Your task to perform on an android device: create a new album in the google photos Image 0: 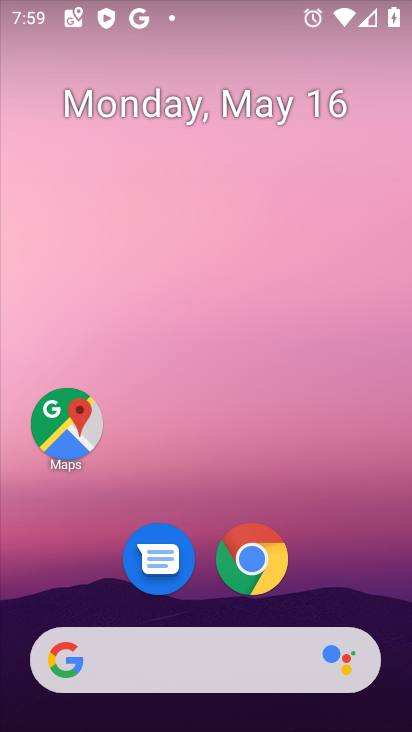
Step 0: drag from (357, 522) to (323, 171)
Your task to perform on an android device: create a new album in the google photos Image 1: 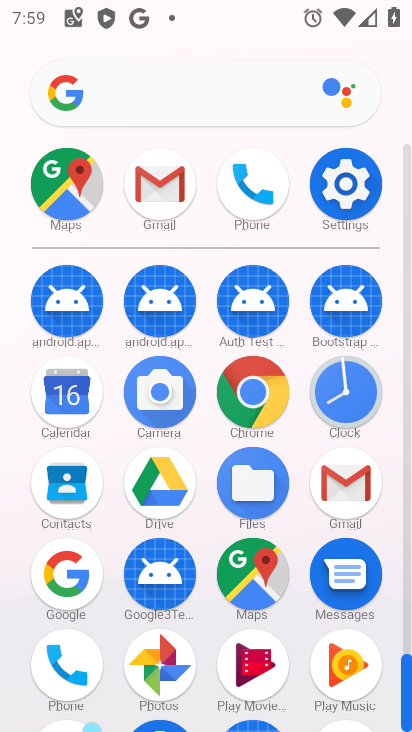
Step 1: click (174, 645)
Your task to perform on an android device: create a new album in the google photos Image 2: 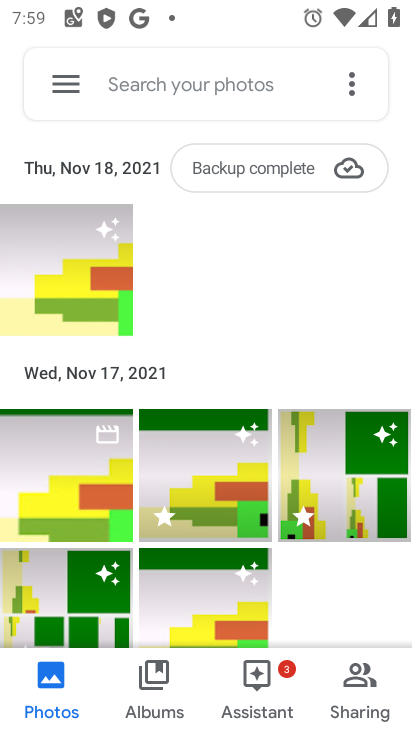
Step 2: click (168, 688)
Your task to perform on an android device: create a new album in the google photos Image 3: 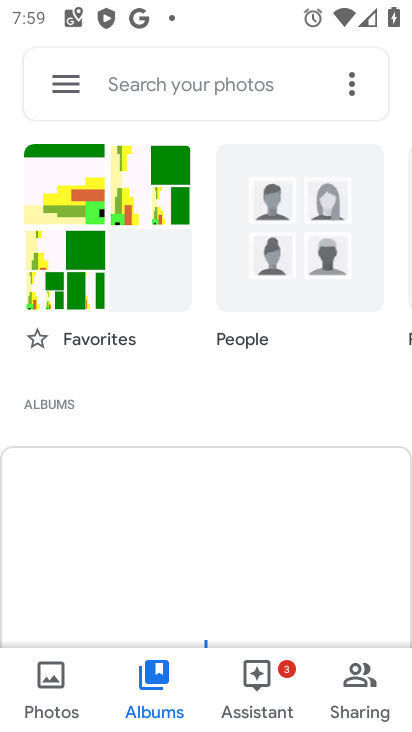
Step 3: drag from (105, 512) to (129, 245)
Your task to perform on an android device: create a new album in the google photos Image 4: 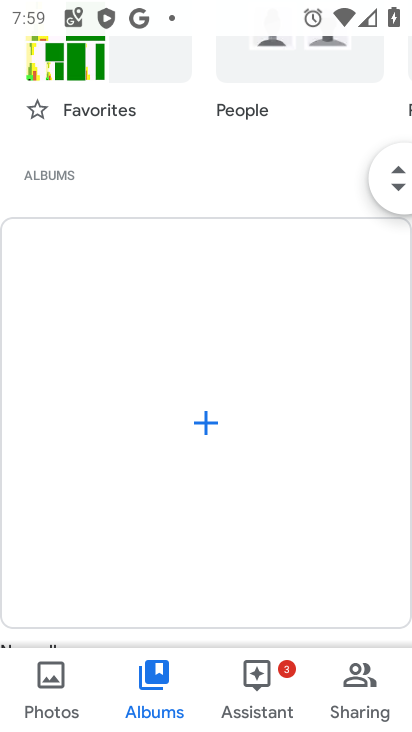
Step 4: click (205, 418)
Your task to perform on an android device: create a new album in the google photos Image 5: 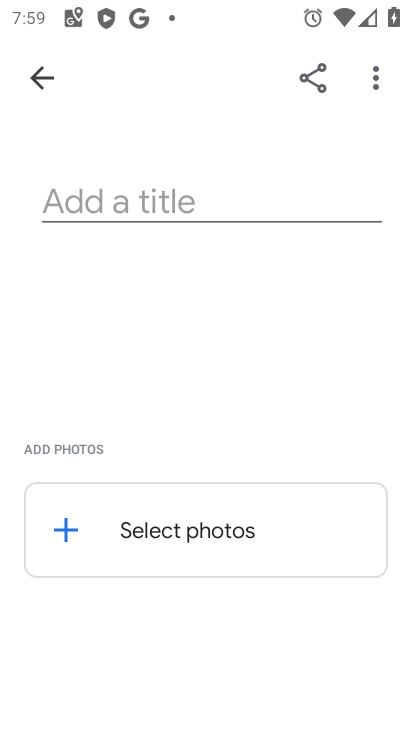
Step 5: click (162, 179)
Your task to perform on an android device: create a new album in the google photos Image 6: 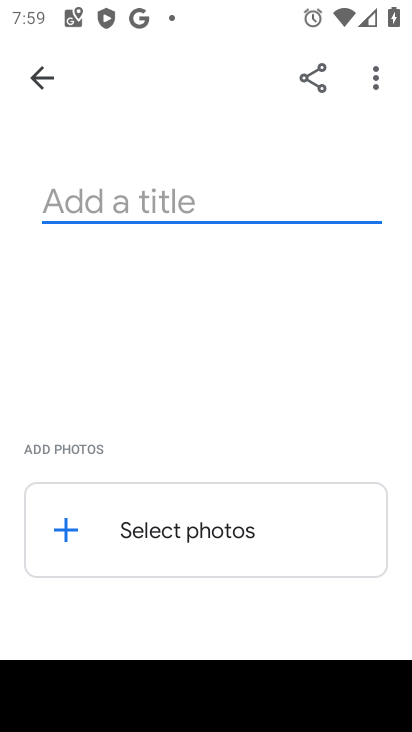
Step 6: type "aaa"
Your task to perform on an android device: create a new album in the google photos Image 7: 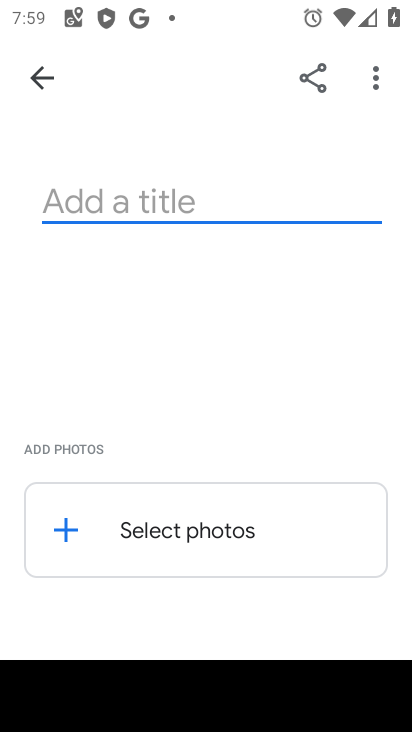
Step 7: click (50, 518)
Your task to perform on an android device: create a new album in the google photos Image 8: 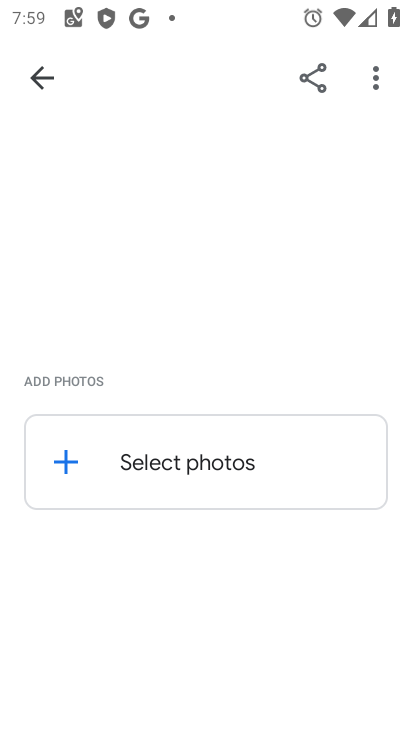
Step 8: click (66, 464)
Your task to perform on an android device: create a new album in the google photos Image 9: 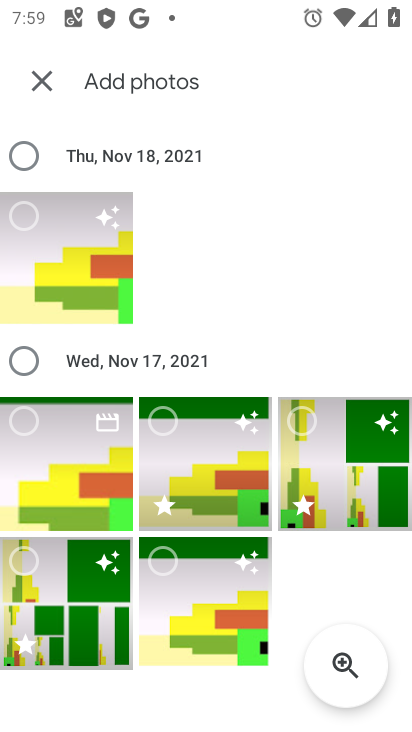
Step 9: click (13, 215)
Your task to perform on an android device: create a new album in the google photos Image 10: 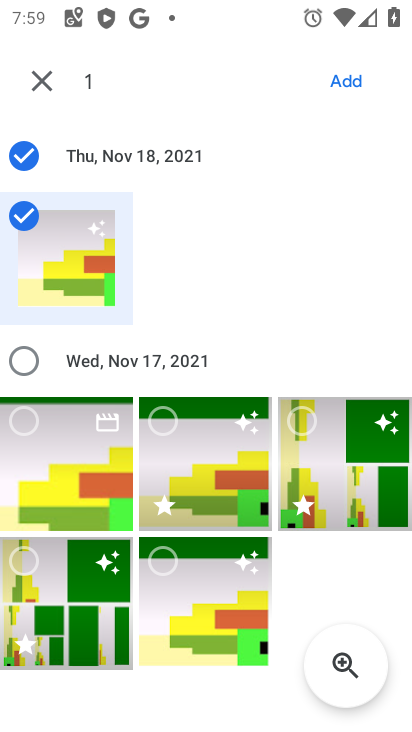
Step 10: click (342, 79)
Your task to perform on an android device: create a new album in the google photos Image 11: 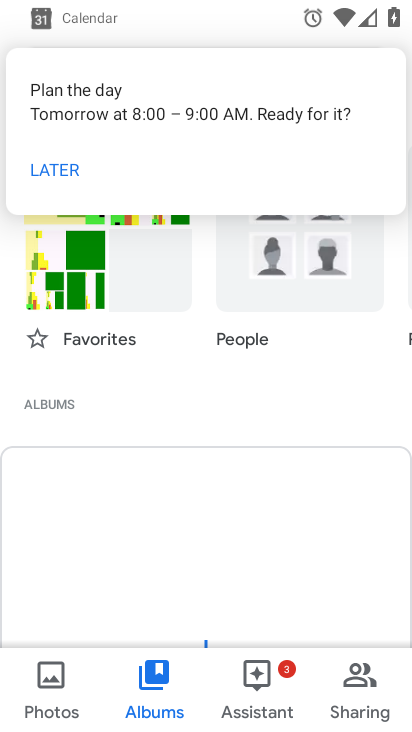
Step 11: task complete